Your task to perform on an android device: clear history in the chrome app Image 0: 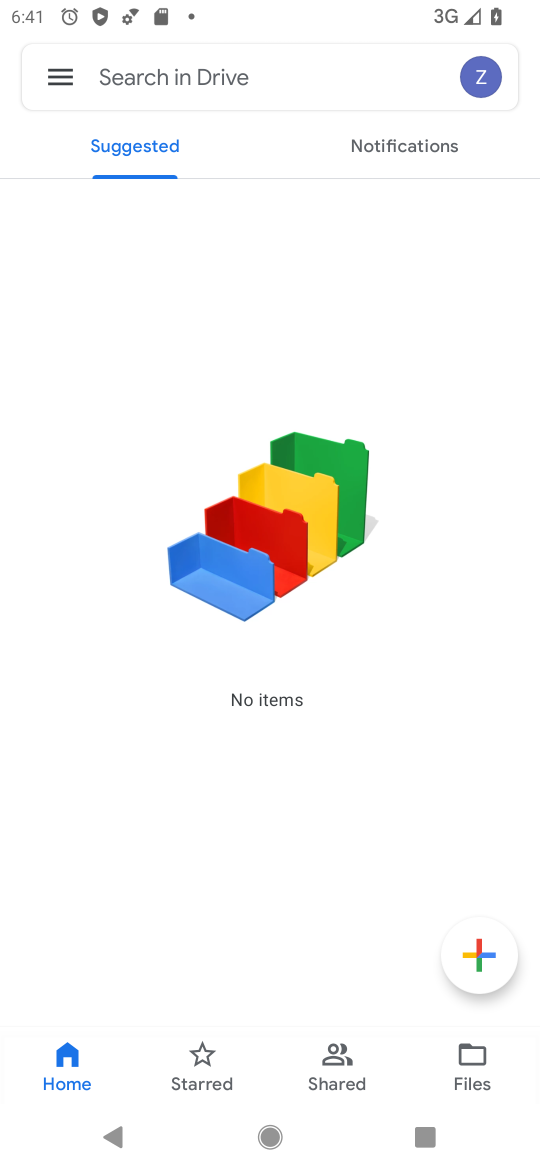
Step 0: press home button
Your task to perform on an android device: clear history in the chrome app Image 1: 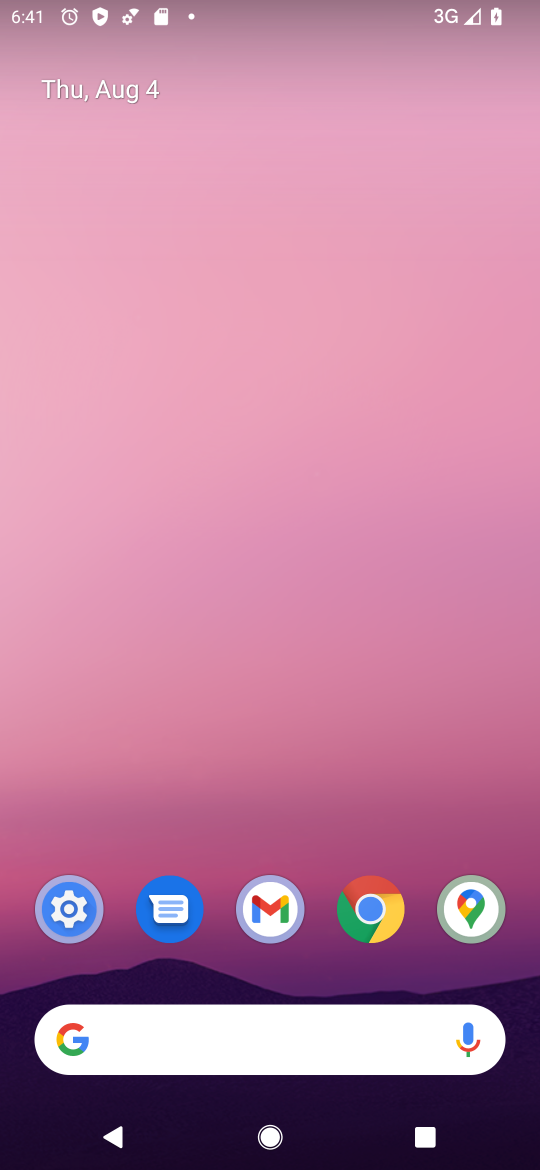
Step 1: drag from (171, 906) to (120, 254)
Your task to perform on an android device: clear history in the chrome app Image 2: 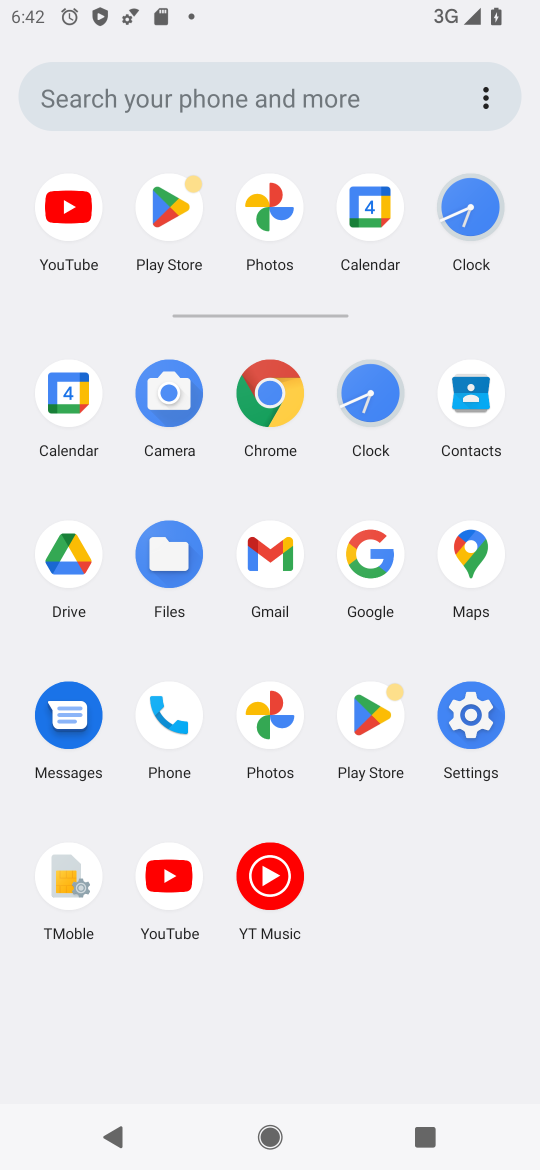
Step 2: click (496, 697)
Your task to perform on an android device: clear history in the chrome app Image 3: 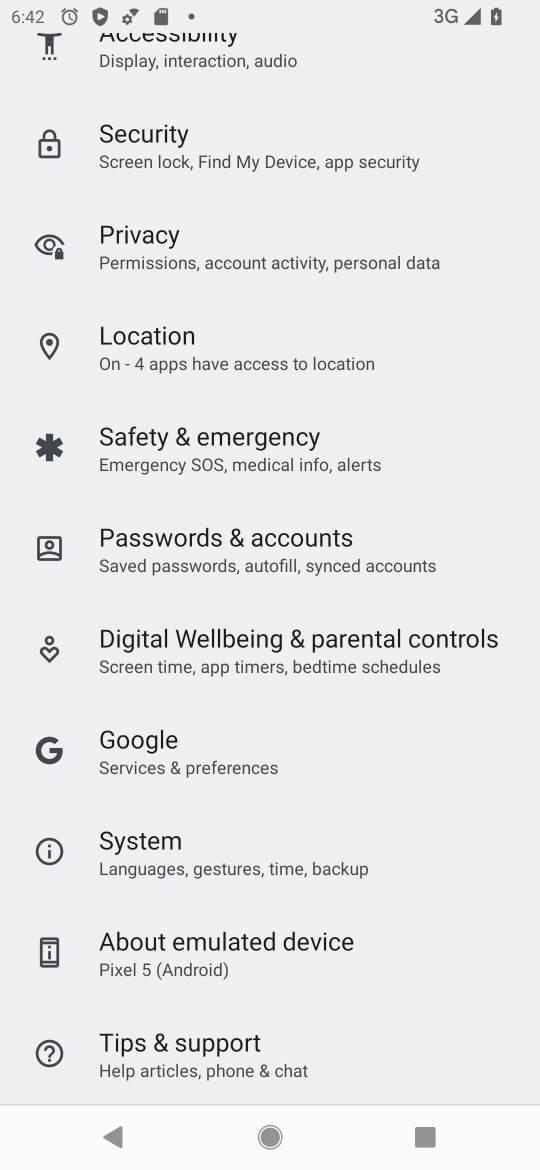
Step 3: drag from (270, 247) to (121, 1030)
Your task to perform on an android device: clear history in the chrome app Image 4: 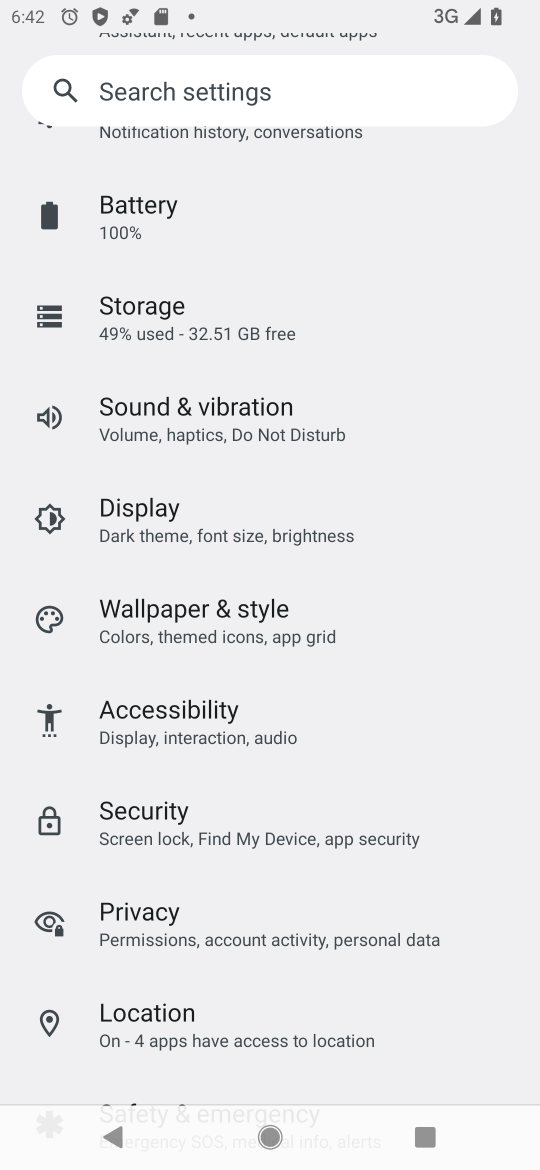
Step 4: press home button
Your task to perform on an android device: clear history in the chrome app Image 5: 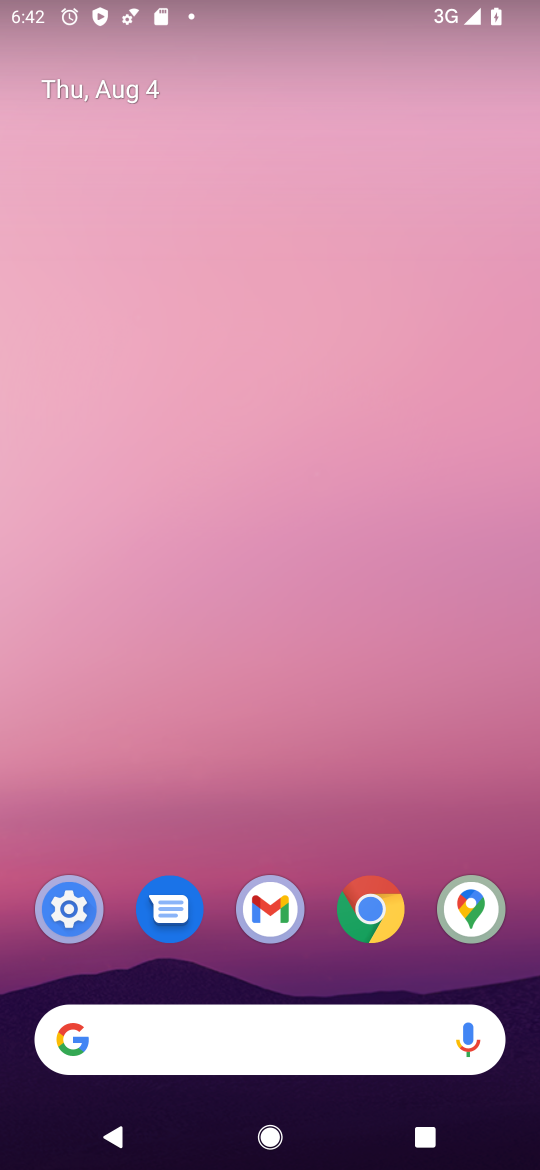
Step 5: drag from (180, 723) to (156, 156)
Your task to perform on an android device: clear history in the chrome app Image 6: 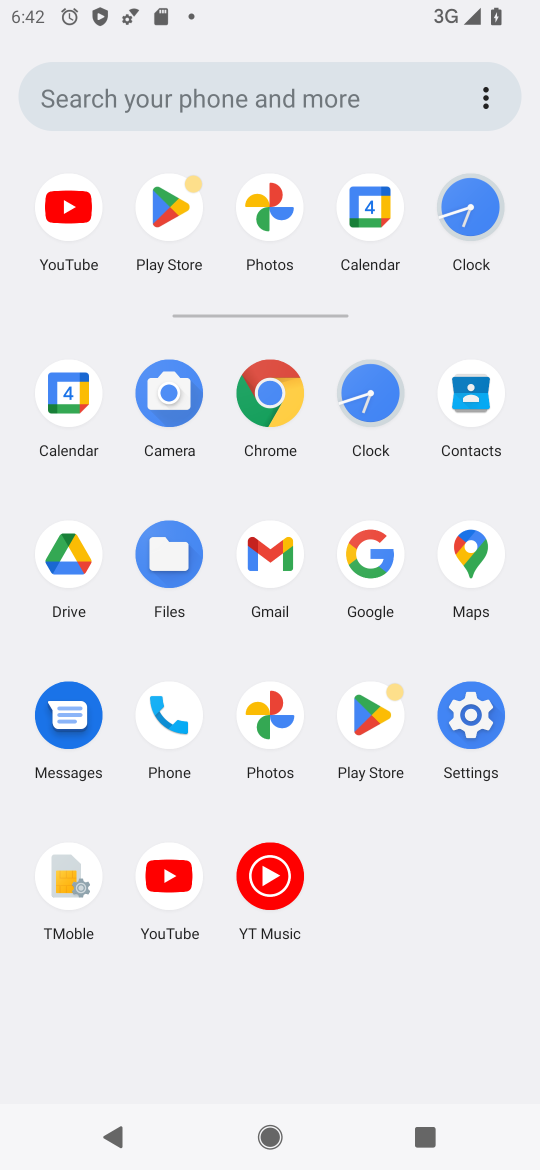
Step 6: click (269, 412)
Your task to perform on an android device: clear history in the chrome app Image 7: 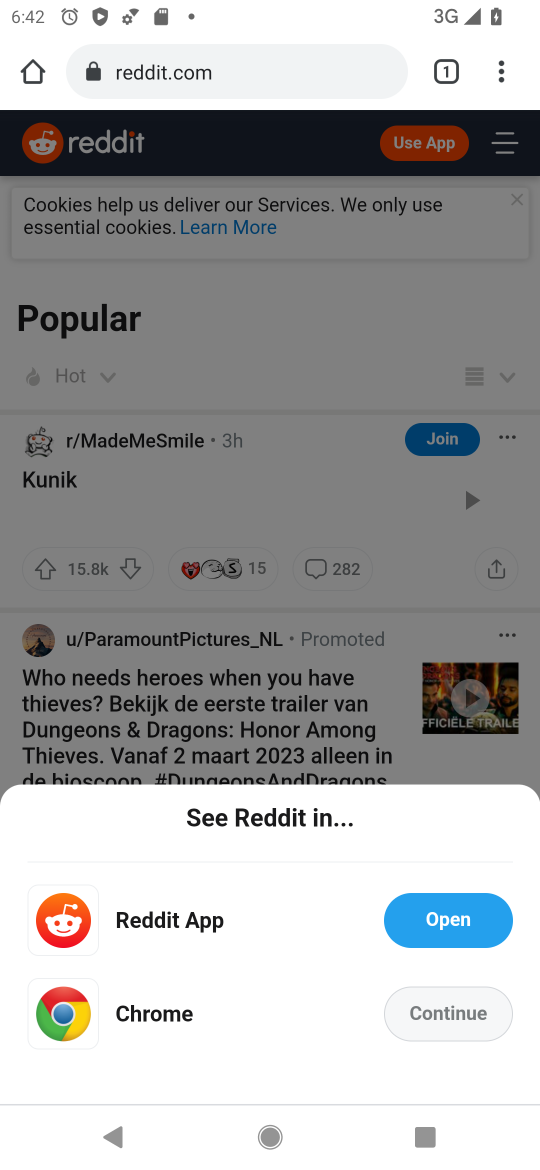
Step 7: task complete